Your task to perform on an android device: check android version Image 0: 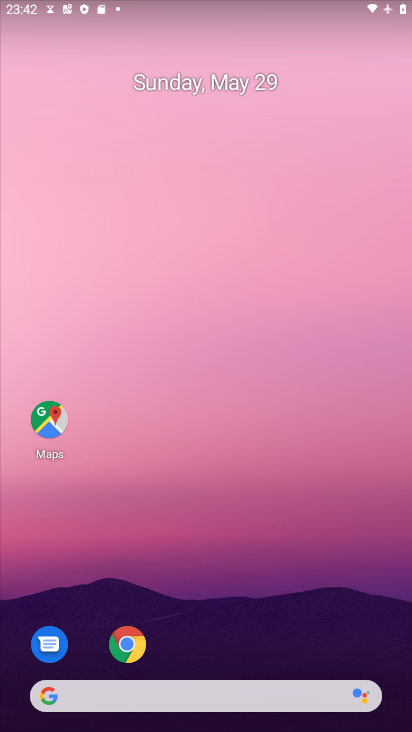
Step 0: drag from (234, 650) to (253, 202)
Your task to perform on an android device: check android version Image 1: 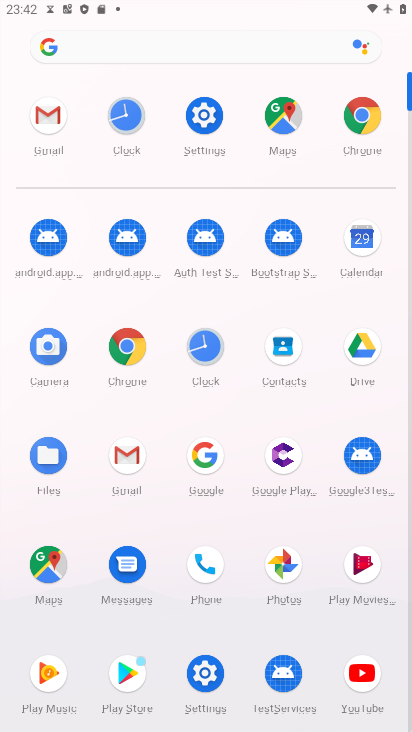
Step 1: click (207, 115)
Your task to perform on an android device: check android version Image 2: 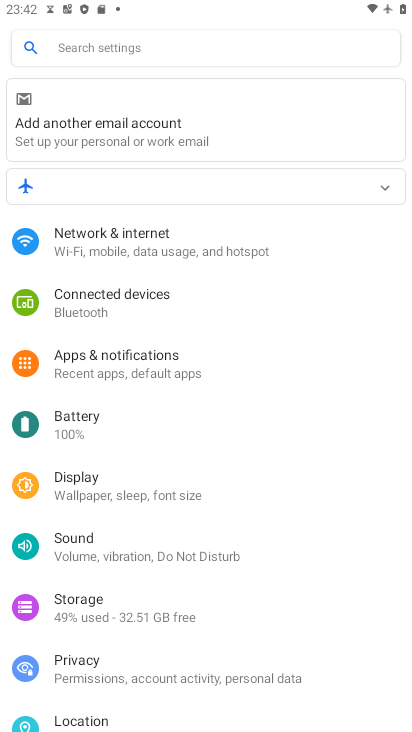
Step 2: drag from (176, 635) to (252, 187)
Your task to perform on an android device: check android version Image 3: 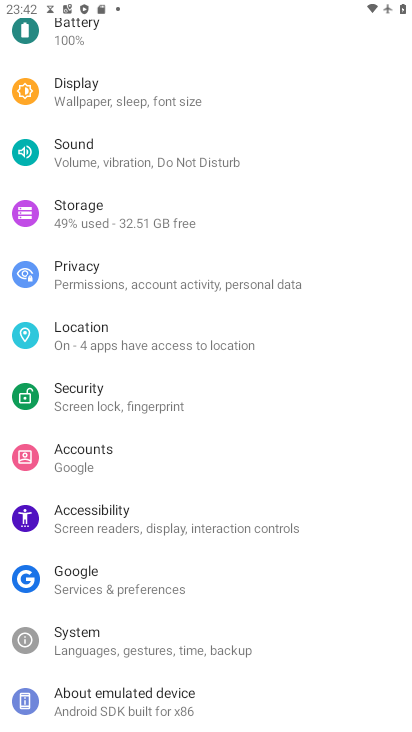
Step 3: drag from (181, 660) to (188, 363)
Your task to perform on an android device: check android version Image 4: 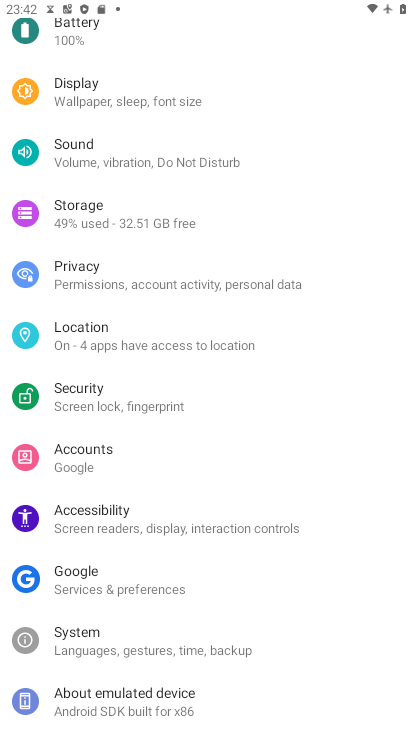
Step 4: click (166, 707)
Your task to perform on an android device: check android version Image 5: 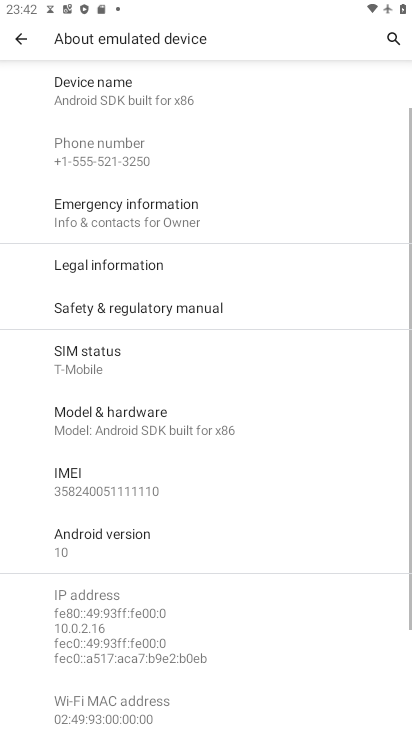
Step 5: task complete